Your task to perform on an android device: Go to settings Image 0: 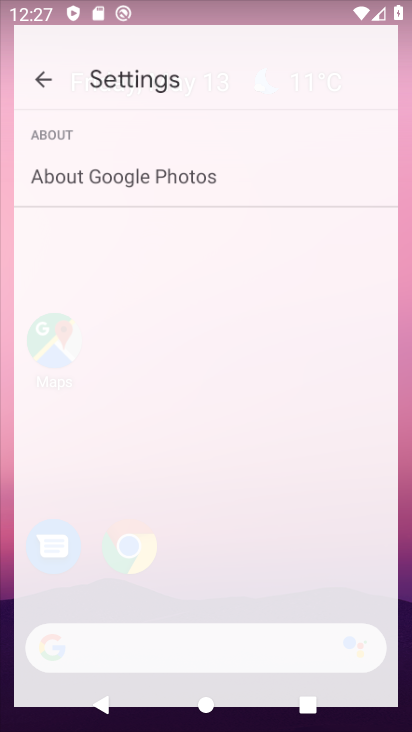
Step 0: drag from (239, 671) to (278, 256)
Your task to perform on an android device: Go to settings Image 1: 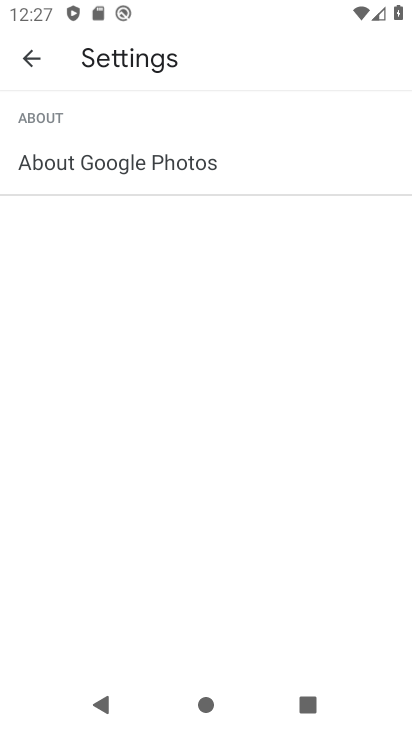
Step 1: press home button
Your task to perform on an android device: Go to settings Image 2: 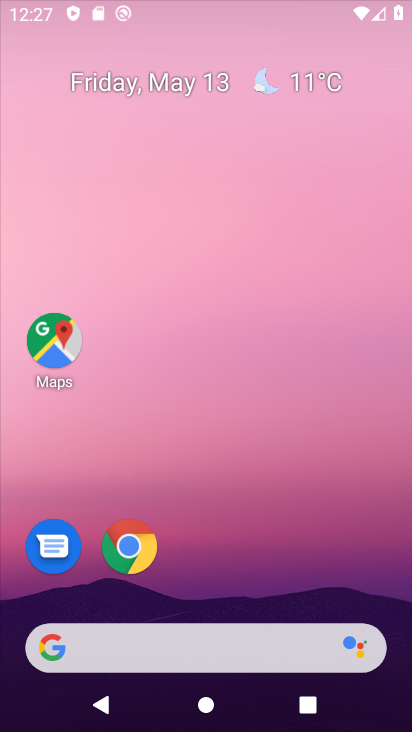
Step 2: drag from (139, 645) to (196, 226)
Your task to perform on an android device: Go to settings Image 3: 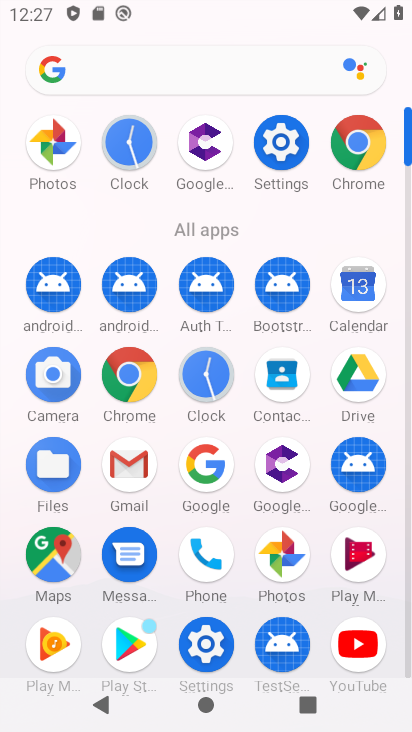
Step 3: click (297, 160)
Your task to perform on an android device: Go to settings Image 4: 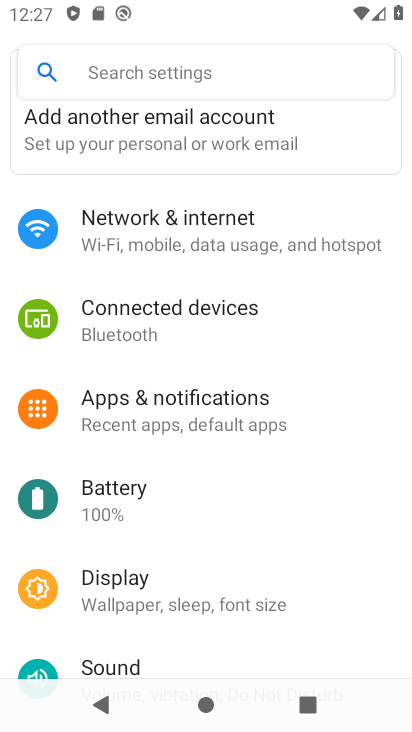
Step 4: task complete